Your task to perform on an android device: Open the web browser Image 0: 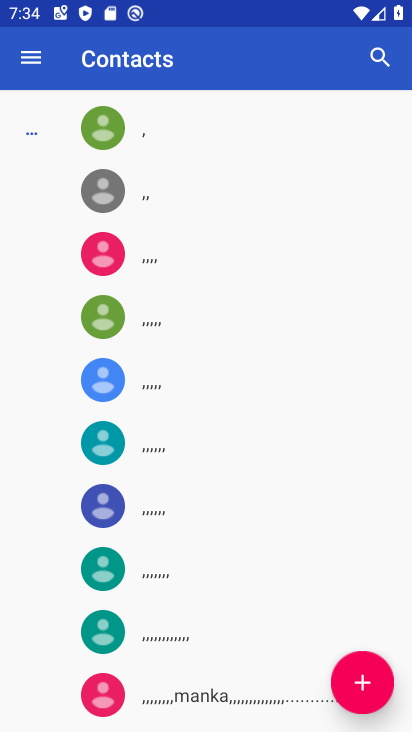
Step 0: press home button
Your task to perform on an android device: Open the web browser Image 1: 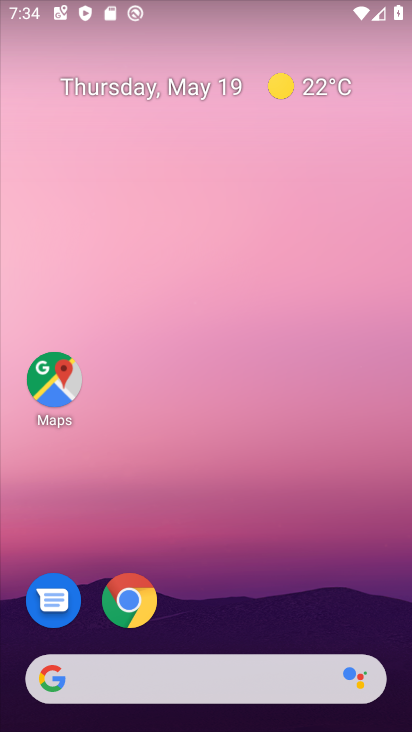
Step 1: drag from (388, 575) to (309, 162)
Your task to perform on an android device: Open the web browser Image 2: 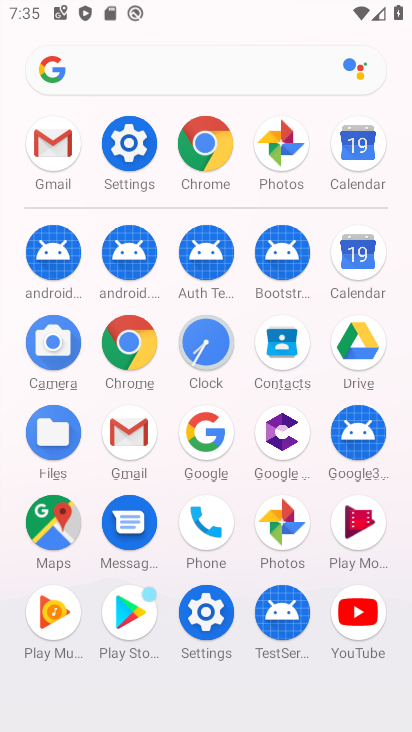
Step 2: click (194, 151)
Your task to perform on an android device: Open the web browser Image 3: 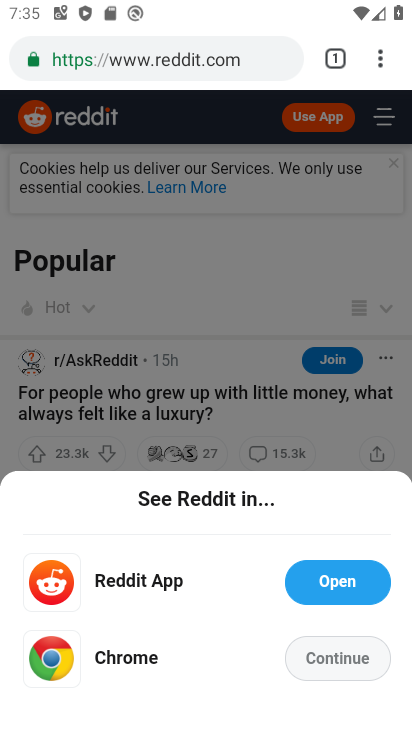
Step 3: task complete